Your task to perform on an android device: clear all cookies in the chrome app Image 0: 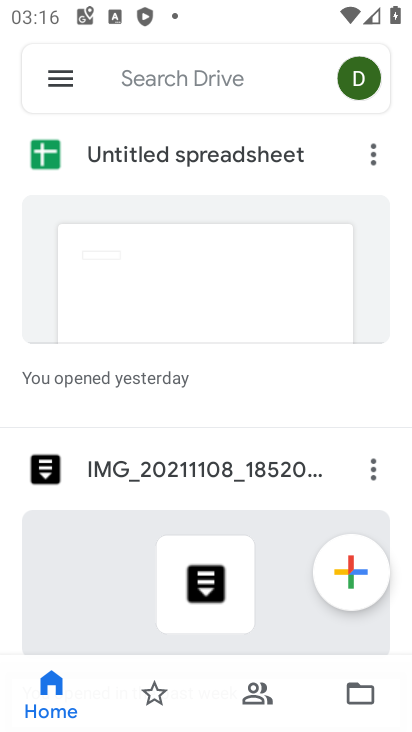
Step 0: press home button
Your task to perform on an android device: clear all cookies in the chrome app Image 1: 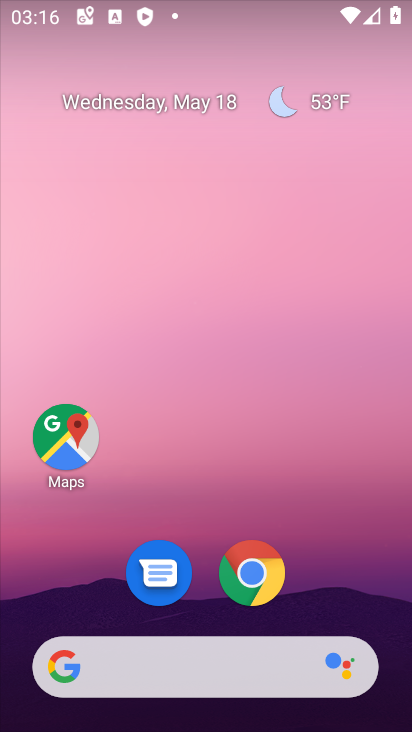
Step 1: click (239, 583)
Your task to perform on an android device: clear all cookies in the chrome app Image 2: 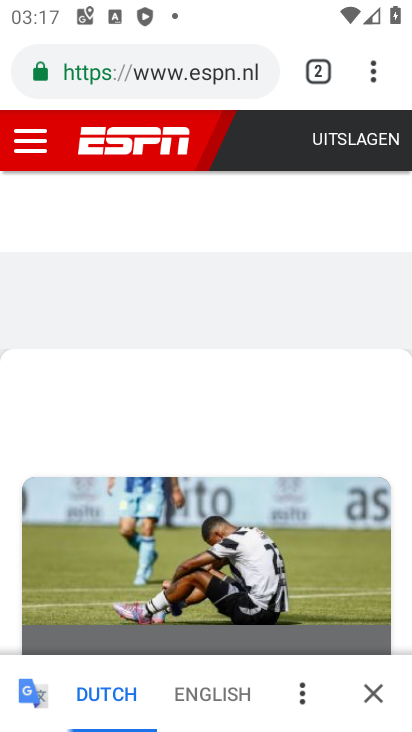
Step 2: drag from (369, 72) to (142, 391)
Your task to perform on an android device: clear all cookies in the chrome app Image 3: 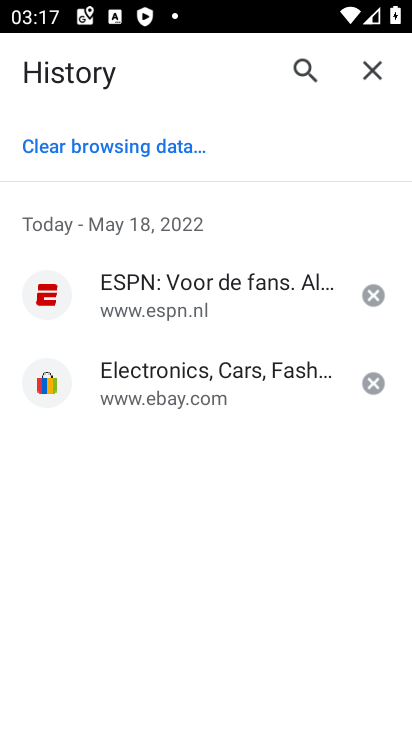
Step 3: click (131, 151)
Your task to perform on an android device: clear all cookies in the chrome app Image 4: 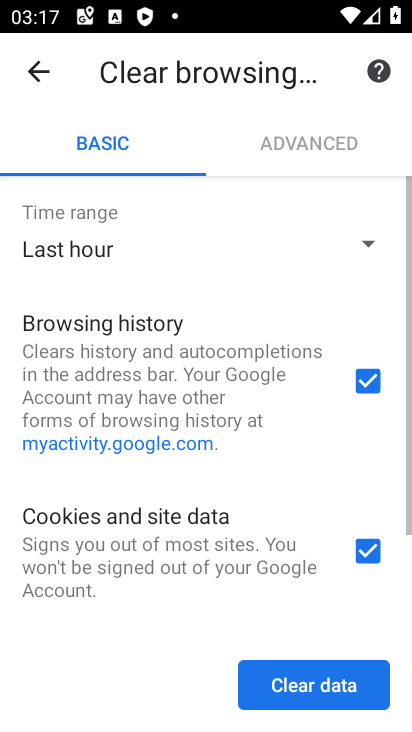
Step 4: click (251, 662)
Your task to perform on an android device: clear all cookies in the chrome app Image 5: 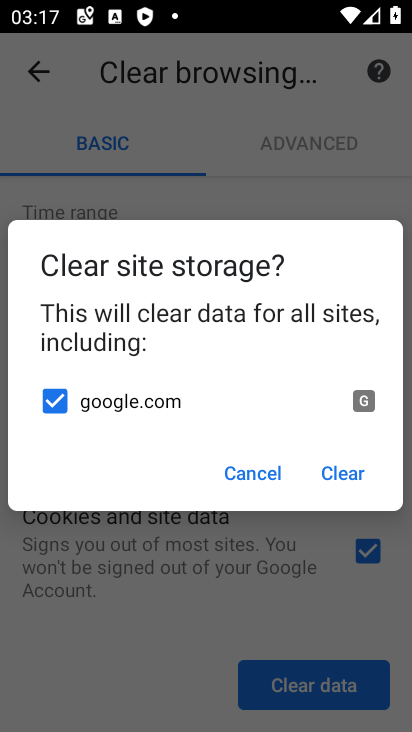
Step 5: click (344, 475)
Your task to perform on an android device: clear all cookies in the chrome app Image 6: 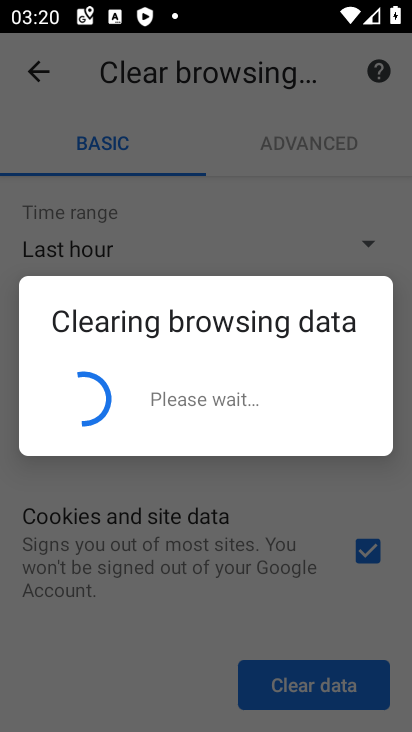
Step 6: task complete